Your task to perform on an android device: Search for sushi restaurants on Maps Image 0: 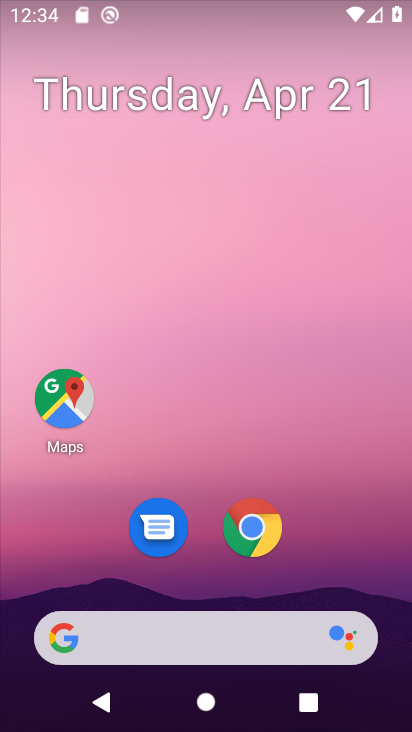
Step 0: drag from (351, 539) to (312, 85)
Your task to perform on an android device: Search for sushi restaurants on Maps Image 1: 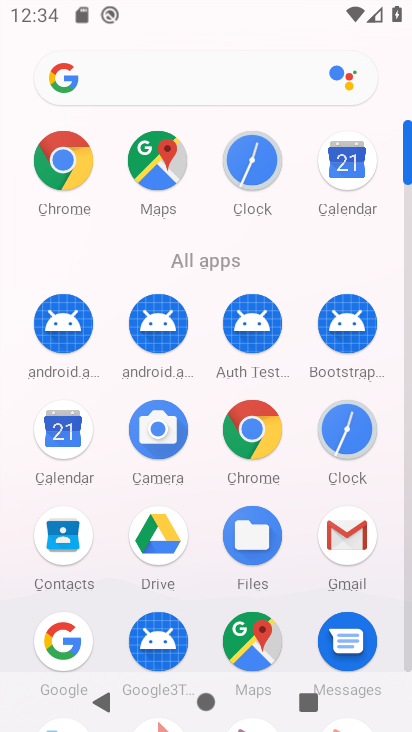
Step 1: click (253, 652)
Your task to perform on an android device: Search for sushi restaurants on Maps Image 2: 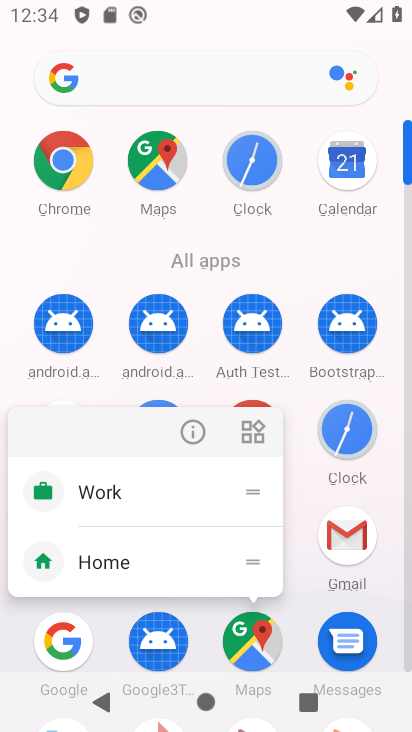
Step 2: click (239, 645)
Your task to perform on an android device: Search for sushi restaurants on Maps Image 3: 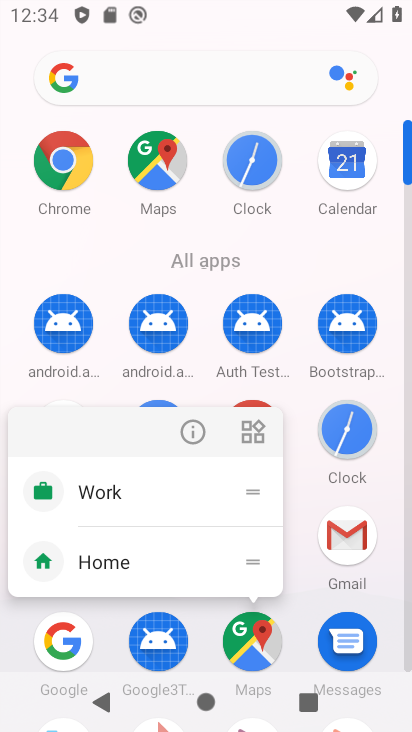
Step 3: click (248, 644)
Your task to perform on an android device: Search for sushi restaurants on Maps Image 4: 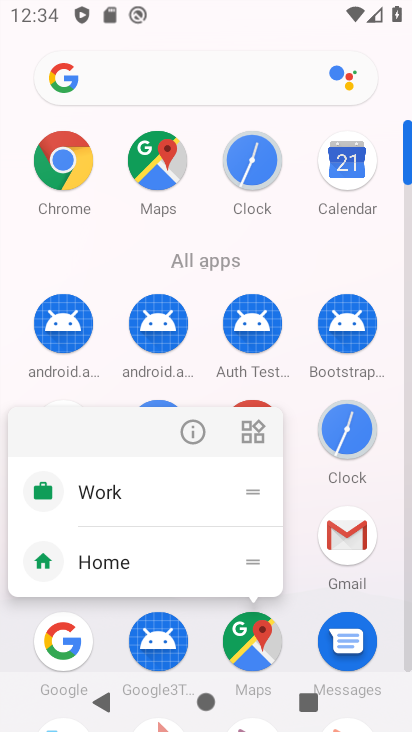
Step 4: drag from (386, 455) to (390, 158)
Your task to perform on an android device: Search for sushi restaurants on Maps Image 5: 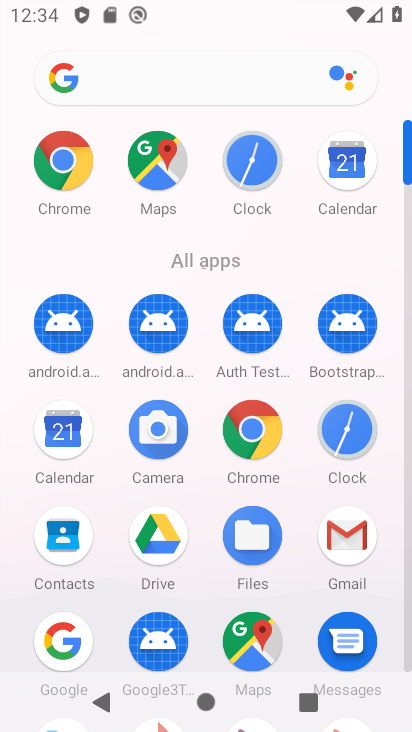
Step 5: click (246, 641)
Your task to perform on an android device: Search for sushi restaurants on Maps Image 6: 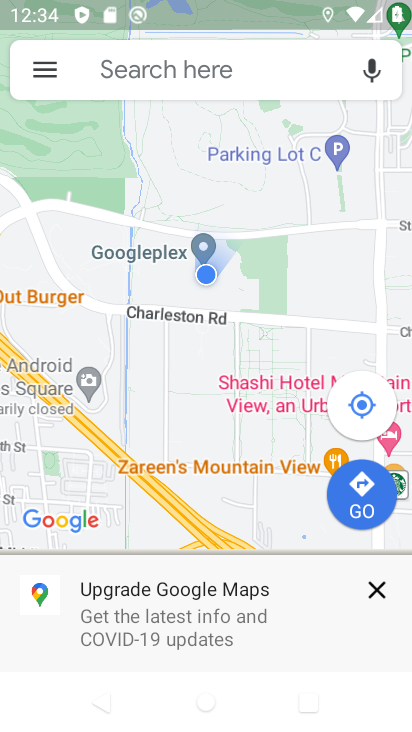
Step 6: click (233, 61)
Your task to perform on an android device: Search for sushi restaurants on Maps Image 7: 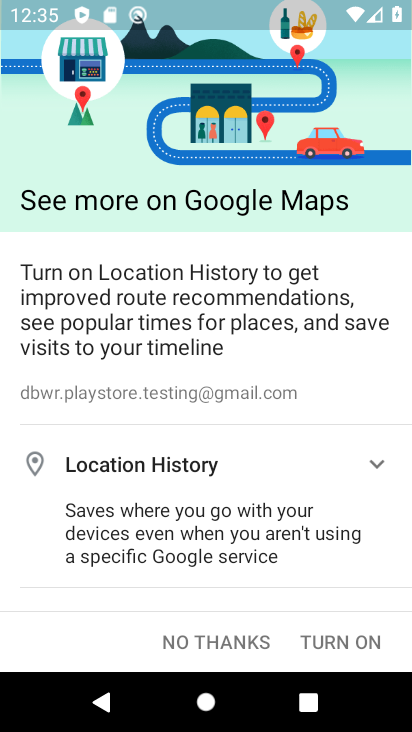
Step 7: click (239, 635)
Your task to perform on an android device: Search for sushi restaurants on Maps Image 8: 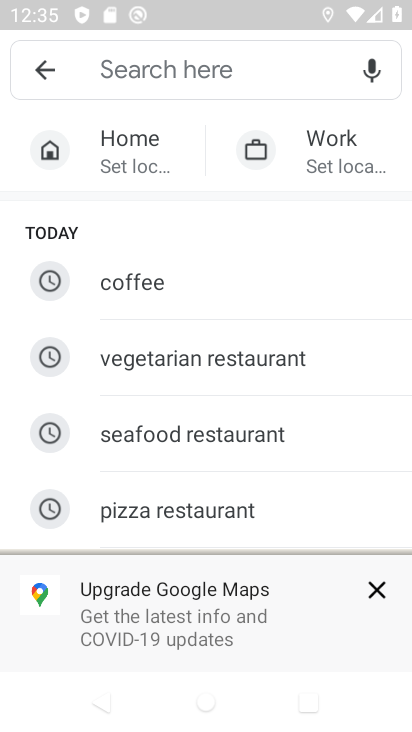
Step 8: click (208, 90)
Your task to perform on an android device: Search for sushi restaurants on Maps Image 9: 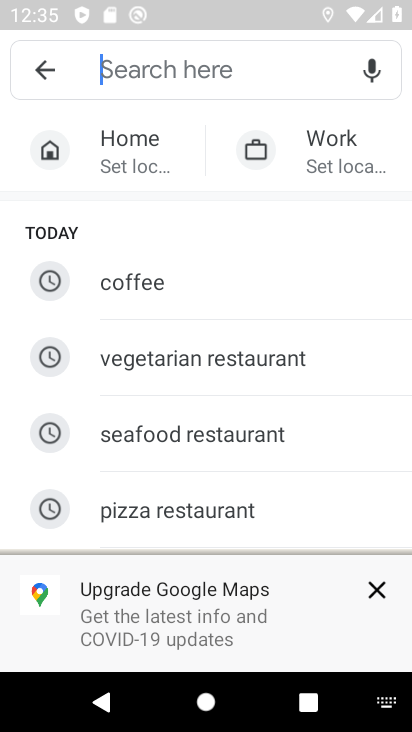
Step 9: type "sushi restaurants"
Your task to perform on an android device: Search for sushi restaurants on Maps Image 10: 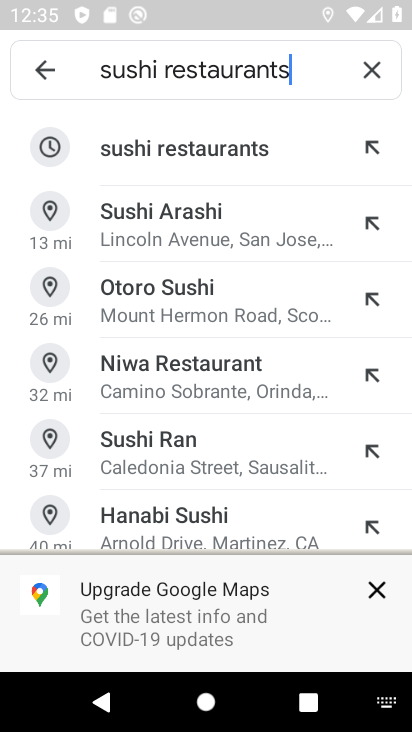
Step 10: click (177, 152)
Your task to perform on an android device: Search for sushi restaurants on Maps Image 11: 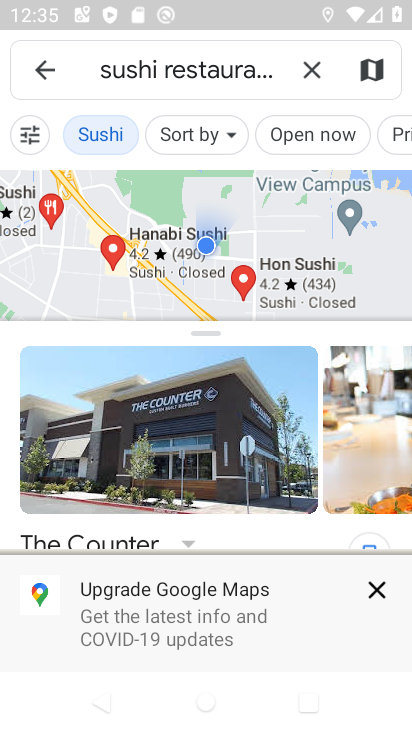
Step 11: task complete